Your task to perform on an android device: What's the weather? Image 0: 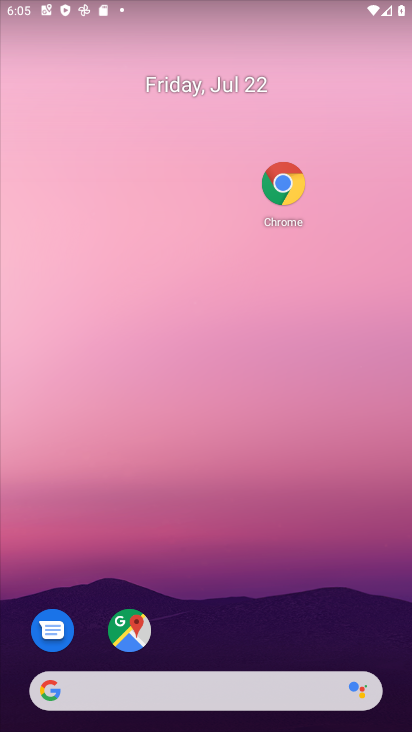
Step 0: drag from (182, 515) to (256, 71)
Your task to perform on an android device: What's the weather? Image 1: 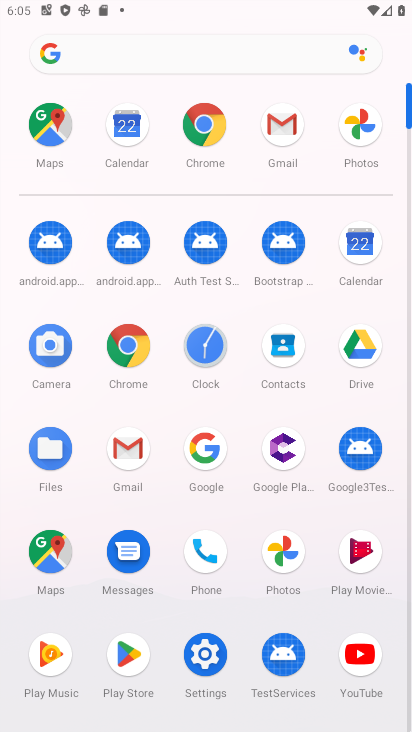
Step 1: click (216, 459)
Your task to perform on an android device: What's the weather? Image 2: 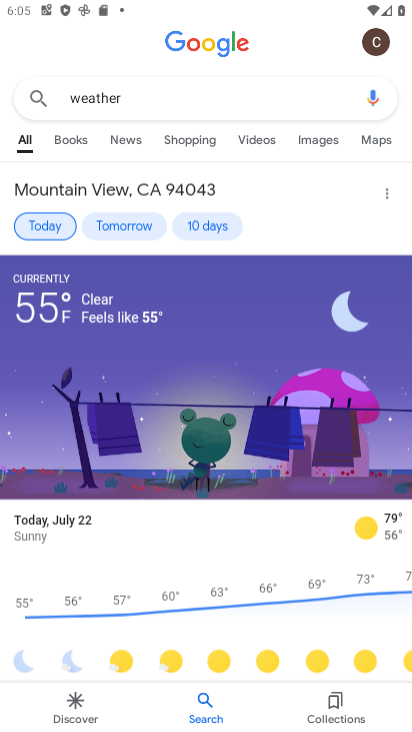
Step 2: task complete